Your task to perform on an android device: change timer sound Image 0: 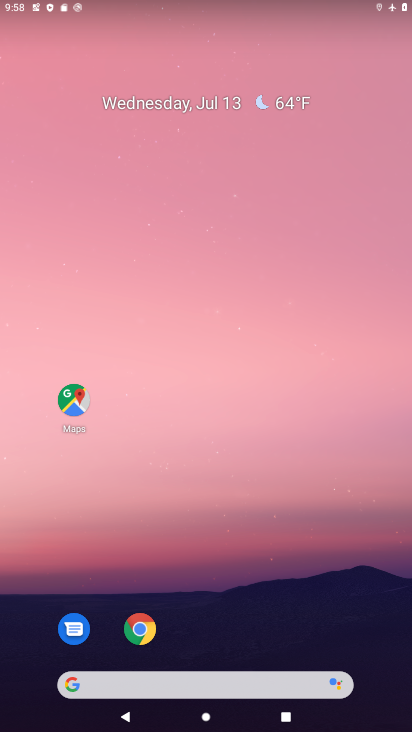
Step 0: drag from (184, 613) to (244, 100)
Your task to perform on an android device: change timer sound Image 1: 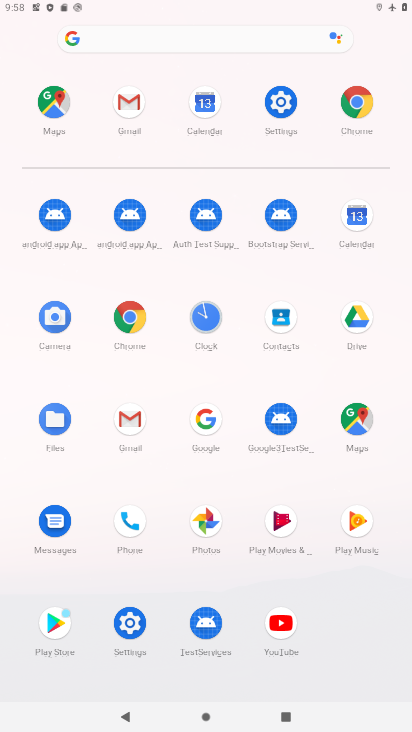
Step 1: click (204, 318)
Your task to perform on an android device: change timer sound Image 2: 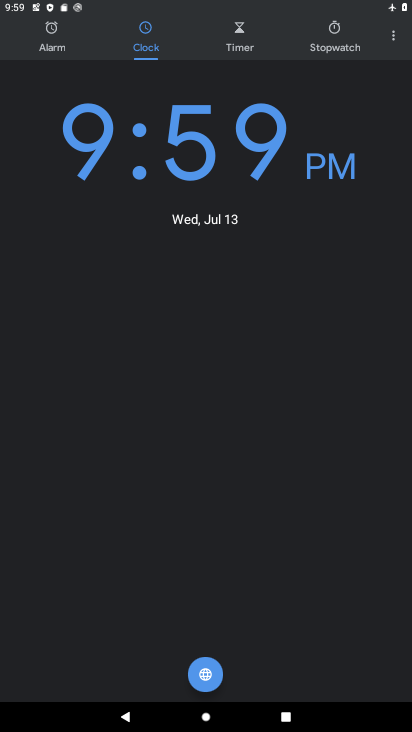
Step 2: click (389, 37)
Your task to perform on an android device: change timer sound Image 3: 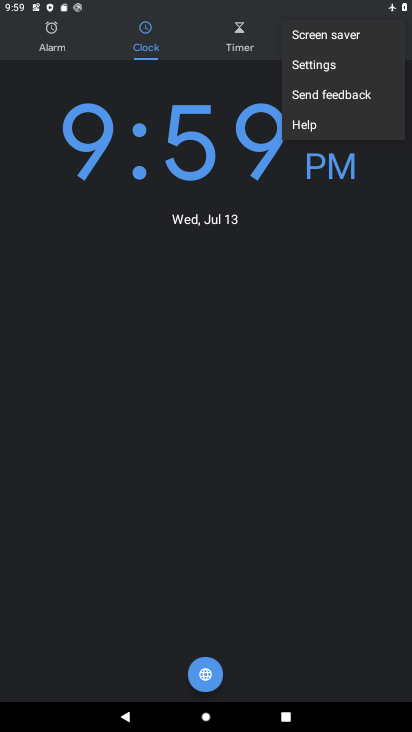
Step 3: click (327, 68)
Your task to perform on an android device: change timer sound Image 4: 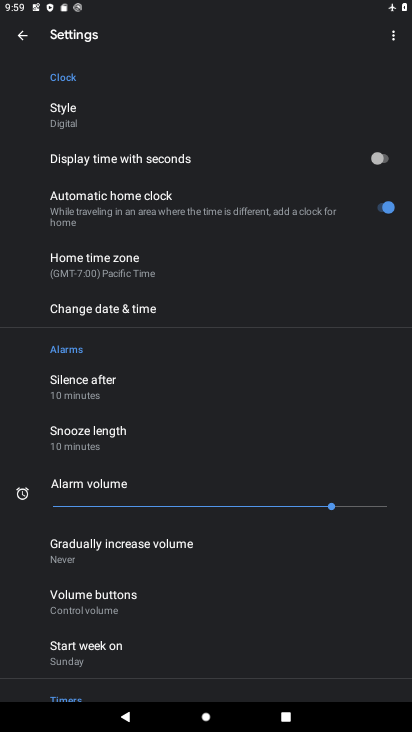
Step 4: drag from (132, 515) to (188, 223)
Your task to perform on an android device: change timer sound Image 5: 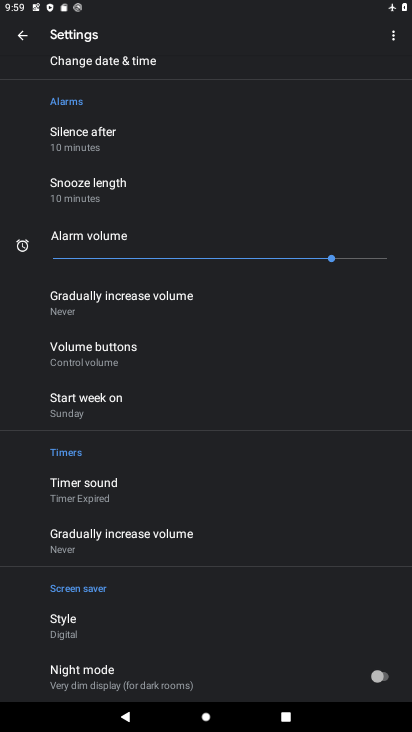
Step 5: click (115, 504)
Your task to perform on an android device: change timer sound Image 6: 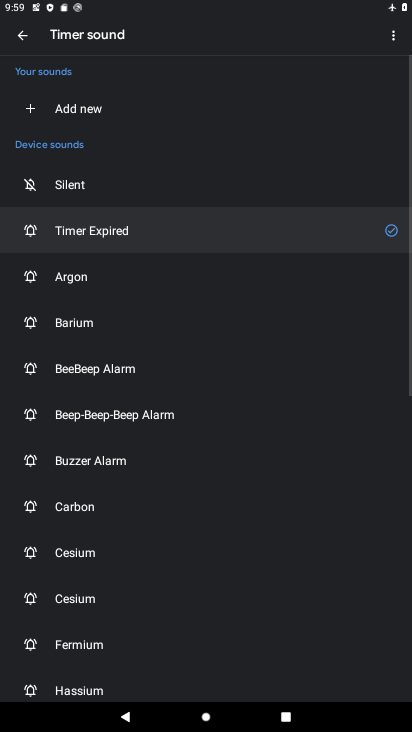
Step 6: click (81, 368)
Your task to perform on an android device: change timer sound Image 7: 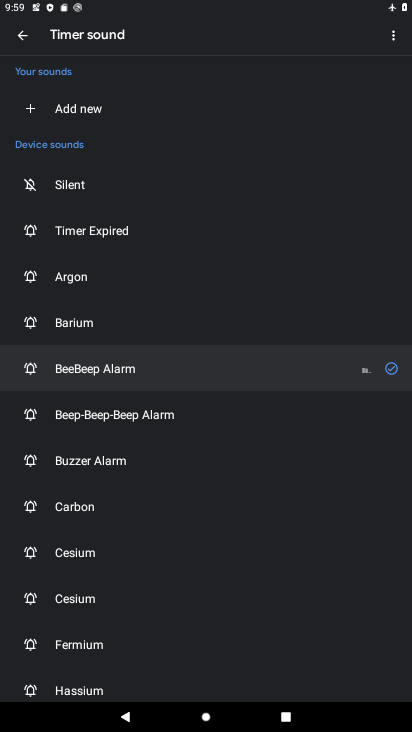
Step 7: task complete